Your task to perform on an android device: Go to Android settings Image 0: 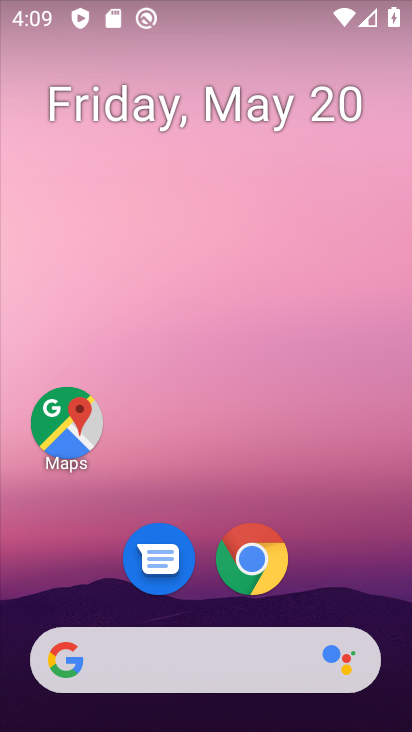
Step 0: drag from (163, 622) to (293, 1)
Your task to perform on an android device: Go to Android settings Image 1: 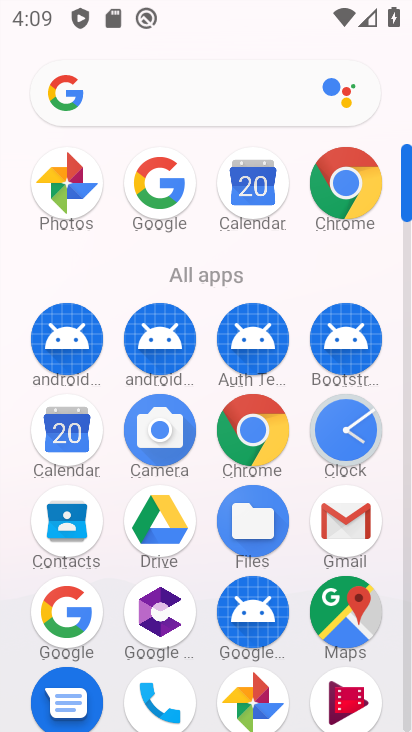
Step 1: drag from (213, 638) to (209, 285)
Your task to perform on an android device: Go to Android settings Image 2: 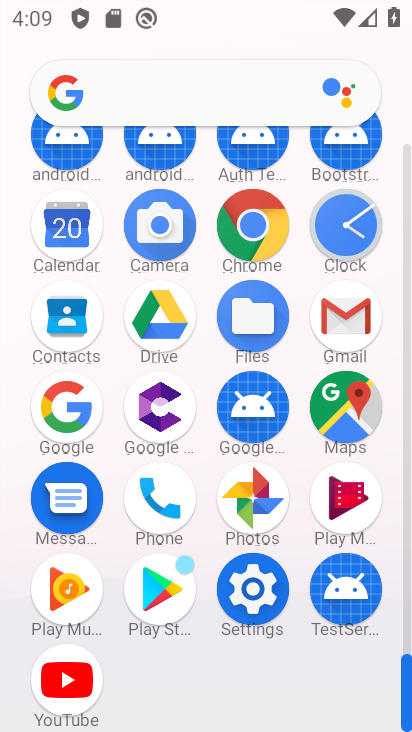
Step 2: click (259, 580)
Your task to perform on an android device: Go to Android settings Image 3: 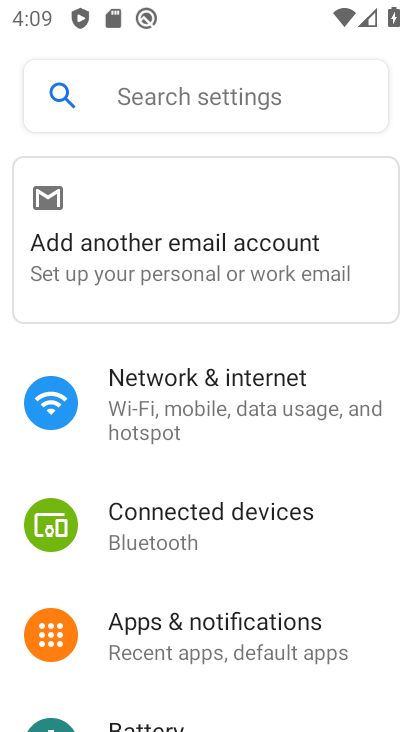
Step 3: task complete